Your task to perform on an android device: Go to notification settings Image 0: 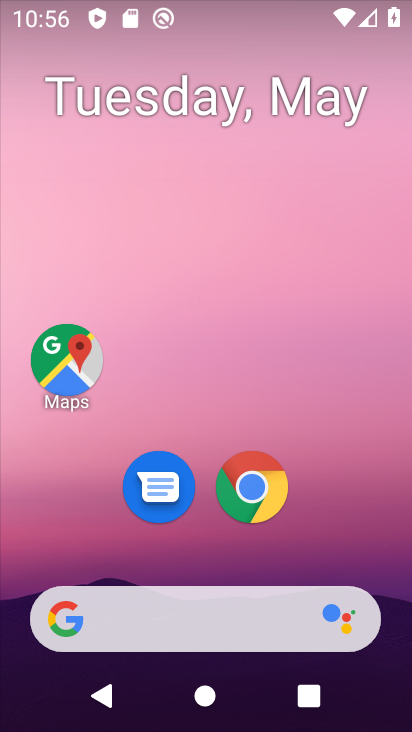
Step 0: drag from (326, 562) to (309, 209)
Your task to perform on an android device: Go to notification settings Image 1: 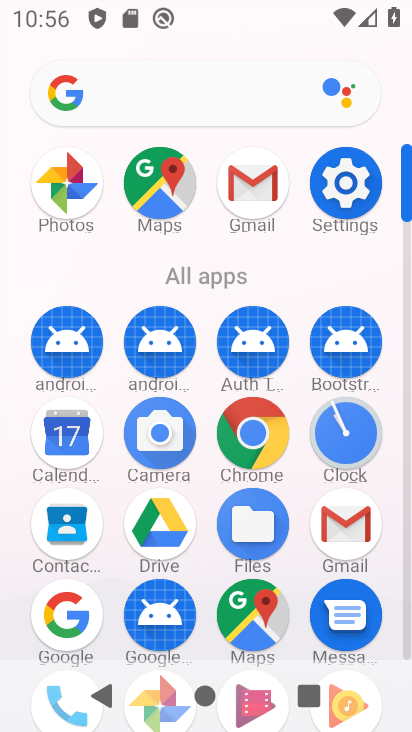
Step 1: click (337, 177)
Your task to perform on an android device: Go to notification settings Image 2: 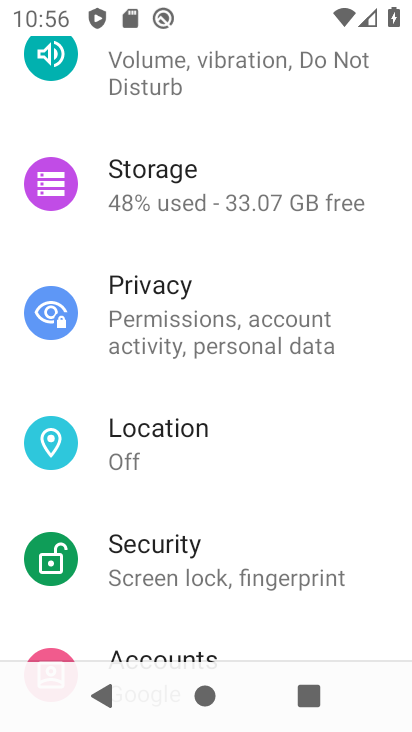
Step 2: drag from (231, 588) to (233, 94)
Your task to perform on an android device: Go to notification settings Image 3: 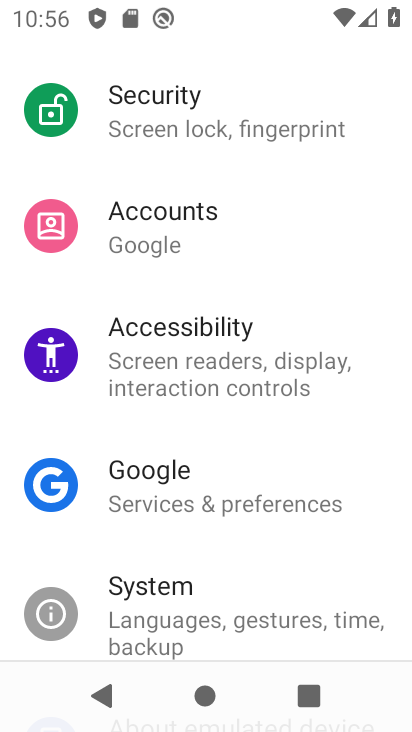
Step 3: drag from (224, 131) to (176, 649)
Your task to perform on an android device: Go to notification settings Image 4: 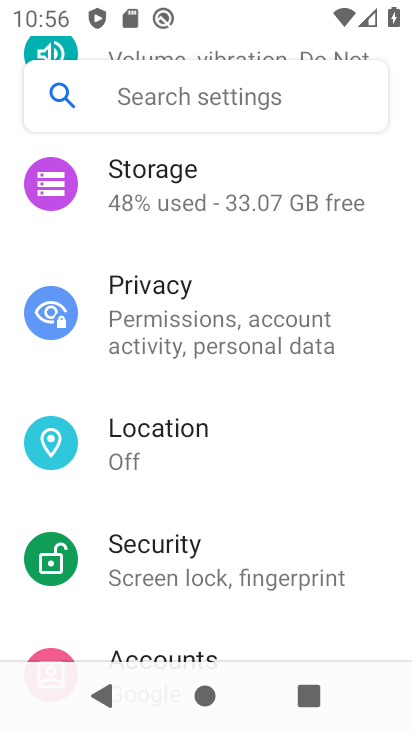
Step 4: drag from (198, 154) to (190, 522)
Your task to perform on an android device: Go to notification settings Image 5: 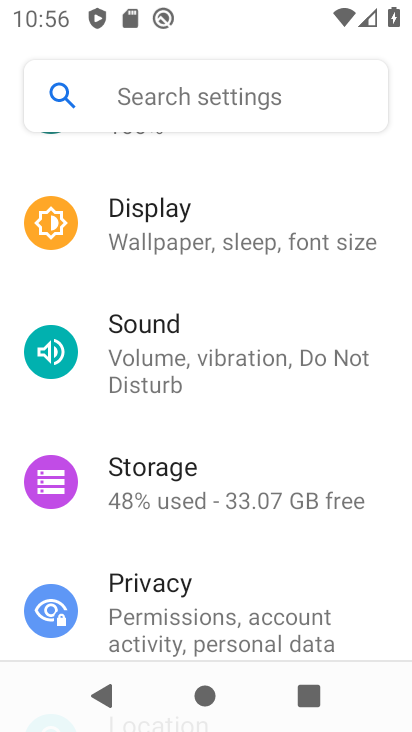
Step 5: drag from (184, 251) to (186, 622)
Your task to perform on an android device: Go to notification settings Image 6: 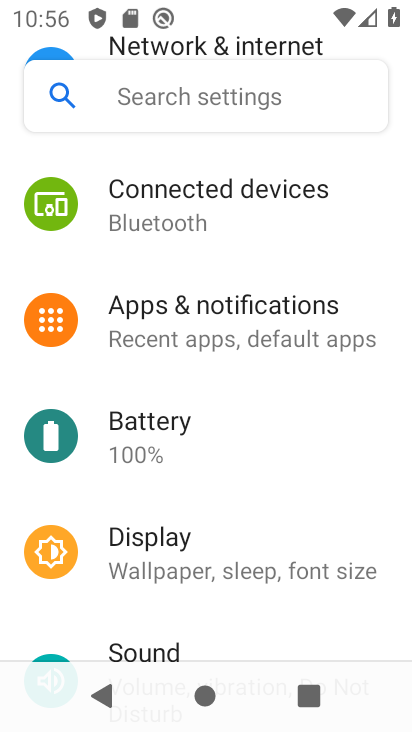
Step 6: click (195, 333)
Your task to perform on an android device: Go to notification settings Image 7: 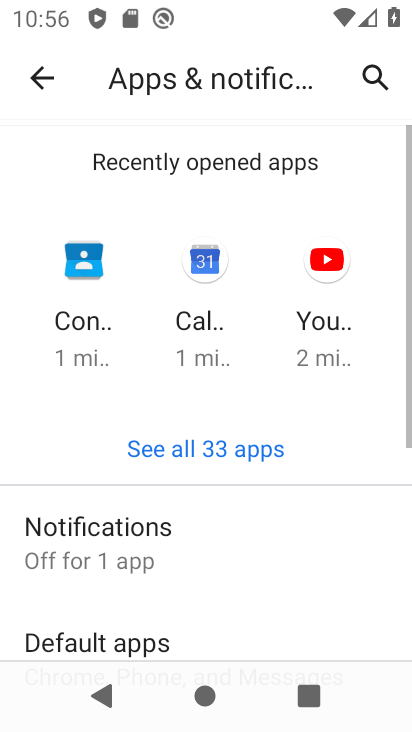
Step 7: click (92, 554)
Your task to perform on an android device: Go to notification settings Image 8: 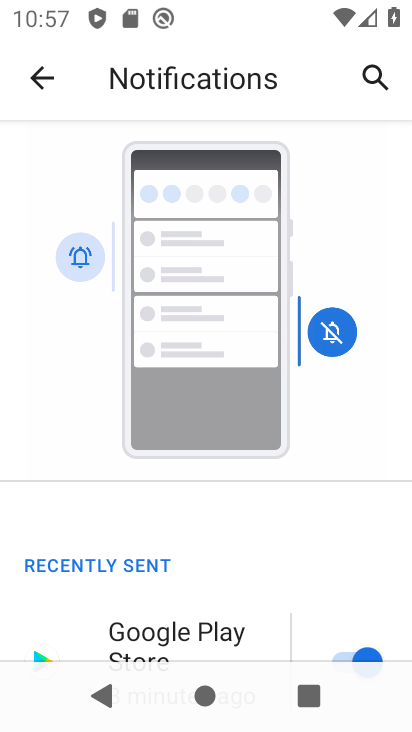
Step 8: task complete